Your task to perform on an android device: turn off location history Image 0: 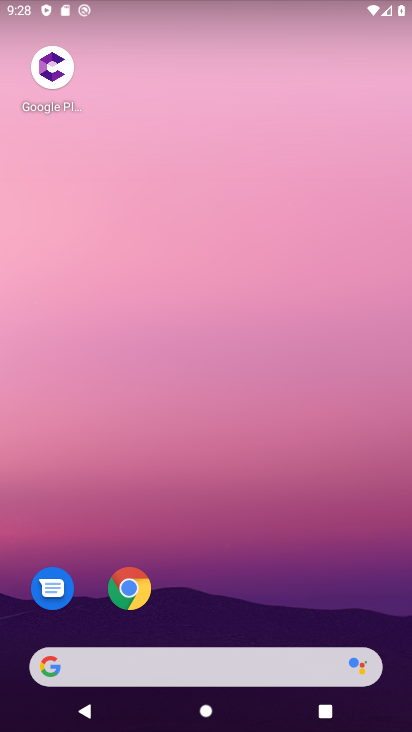
Step 0: drag from (327, 594) to (225, 166)
Your task to perform on an android device: turn off location history Image 1: 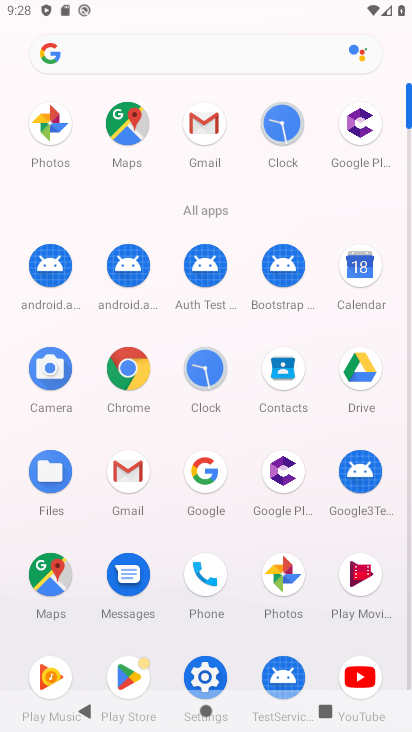
Step 1: click (200, 669)
Your task to perform on an android device: turn off location history Image 2: 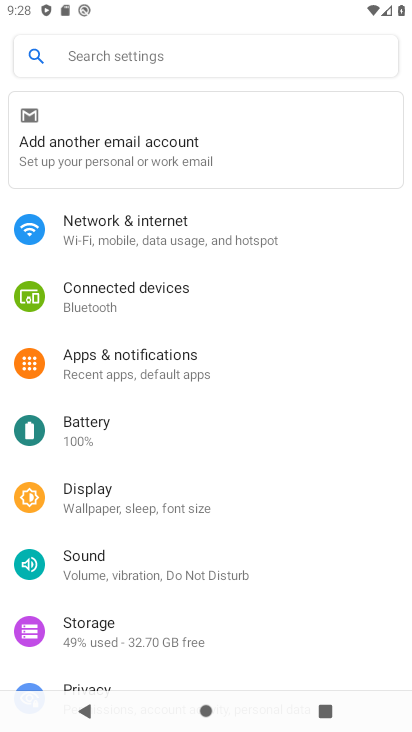
Step 2: drag from (324, 610) to (213, 353)
Your task to perform on an android device: turn off location history Image 3: 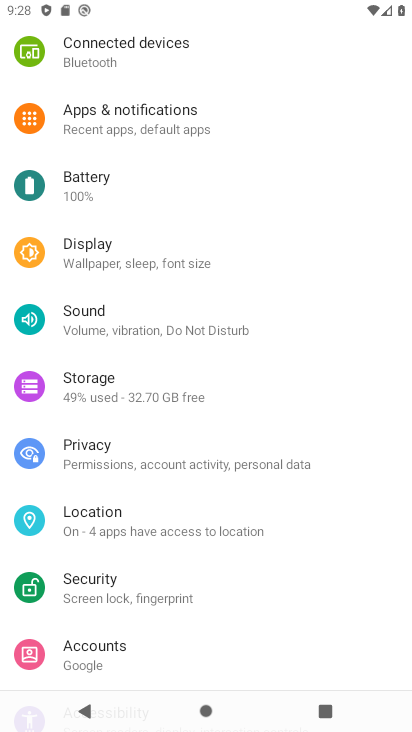
Step 3: drag from (311, 622) to (296, 486)
Your task to perform on an android device: turn off location history Image 4: 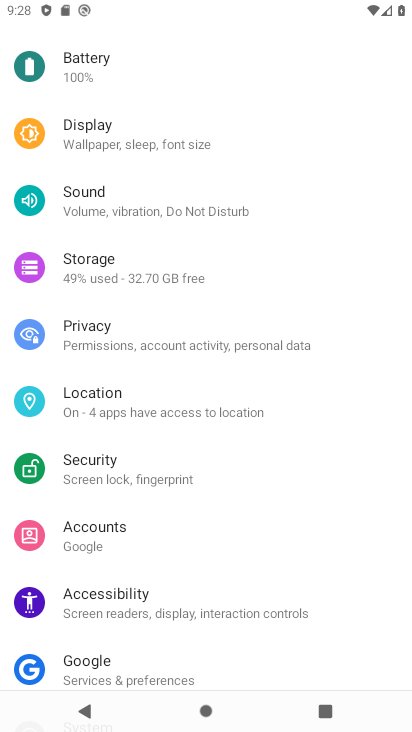
Step 4: click (138, 413)
Your task to perform on an android device: turn off location history Image 5: 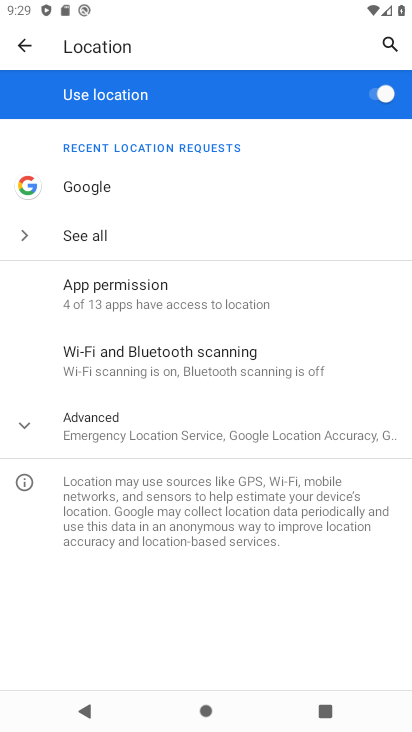
Step 5: click (173, 433)
Your task to perform on an android device: turn off location history Image 6: 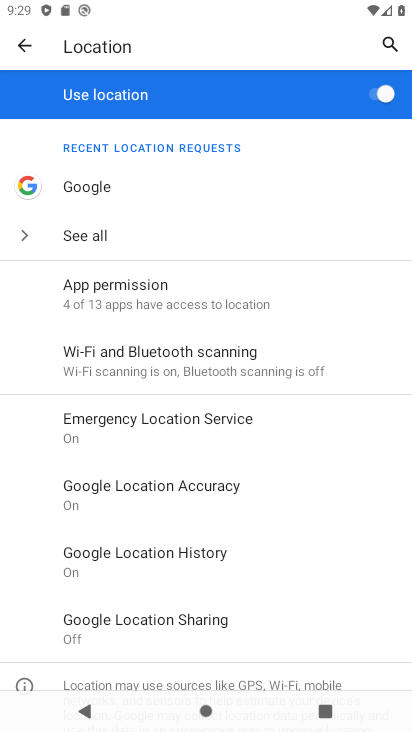
Step 6: click (218, 551)
Your task to perform on an android device: turn off location history Image 7: 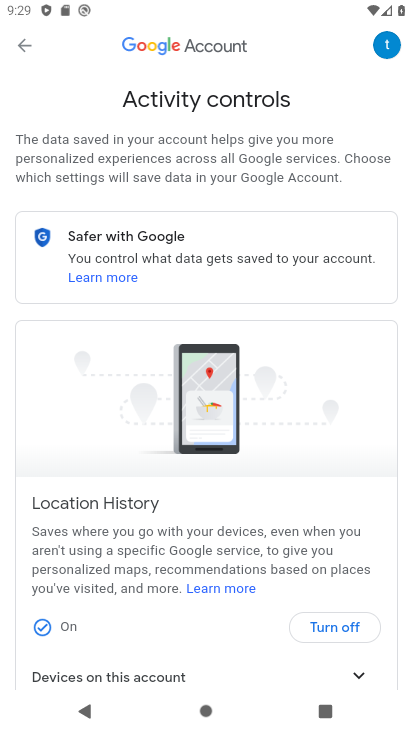
Step 7: click (360, 631)
Your task to perform on an android device: turn off location history Image 8: 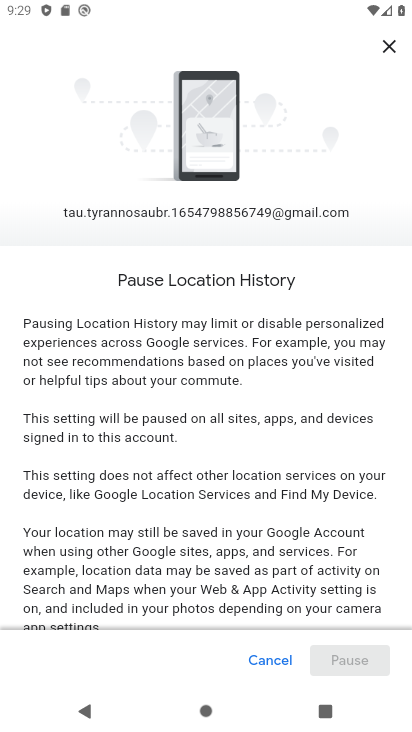
Step 8: drag from (350, 513) to (241, 22)
Your task to perform on an android device: turn off location history Image 9: 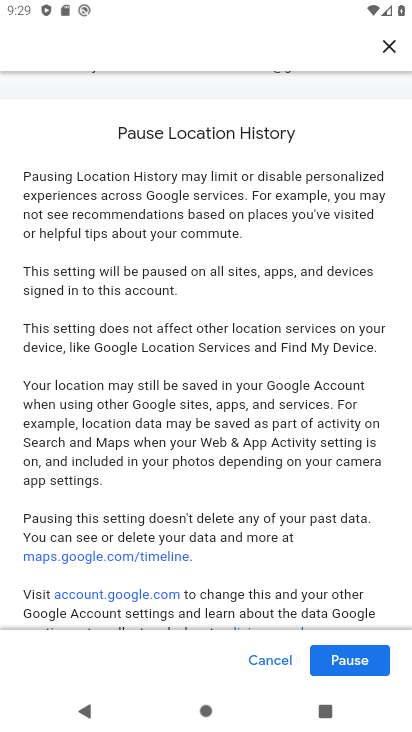
Step 9: click (376, 654)
Your task to perform on an android device: turn off location history Image 10: 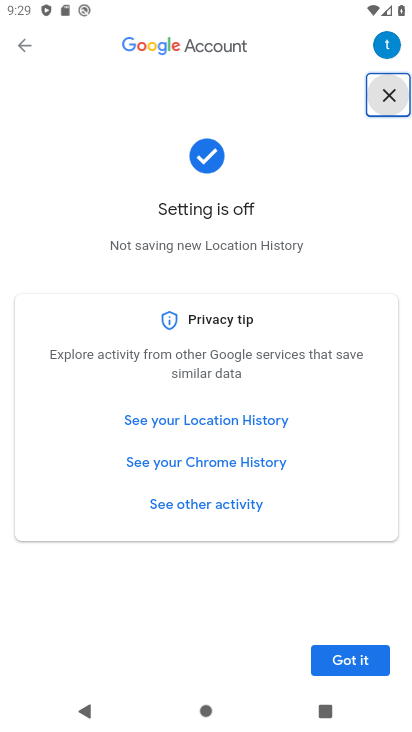
Step 10: click (367, 663)
Your task to perform on an android device: turn off location history Image 11: 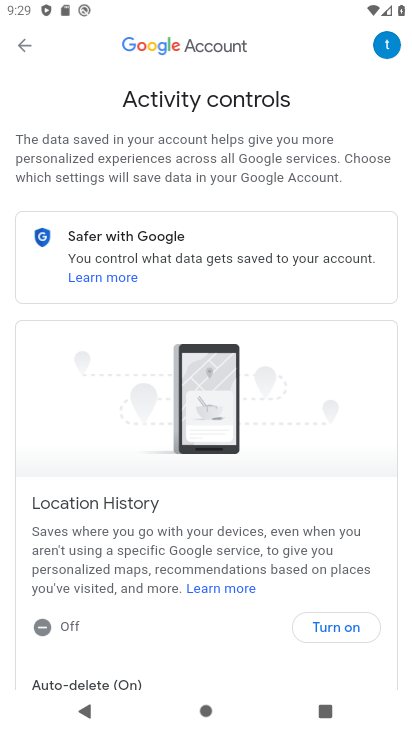
Step 11: task complete